Your task to perform on an android device: snooze an email in the gmail app Image 0: 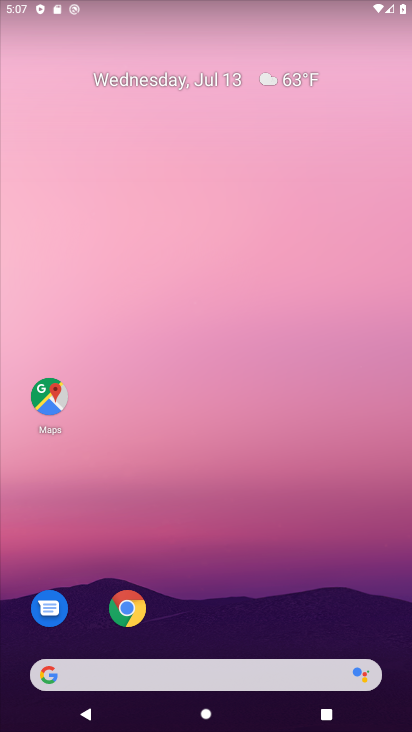
Step 0: drag from (295, 618) to (173, 174)
Your task to perform on an android device: snooze an email in the gmail app Image 1: 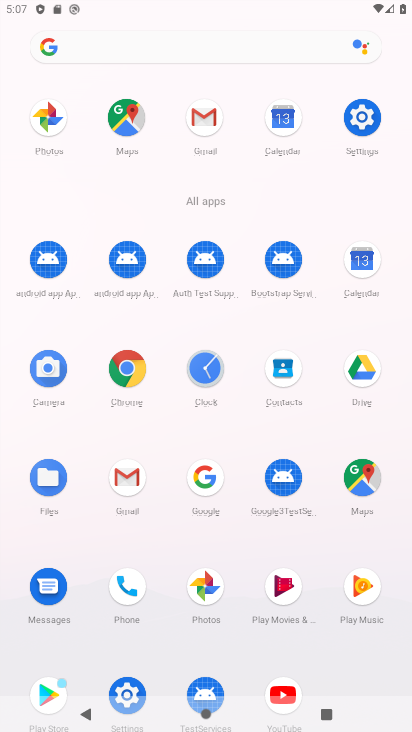
Step 1: click (209, 122)
Your task to perform on an android device: snooze an email in the gmail app Image 2: 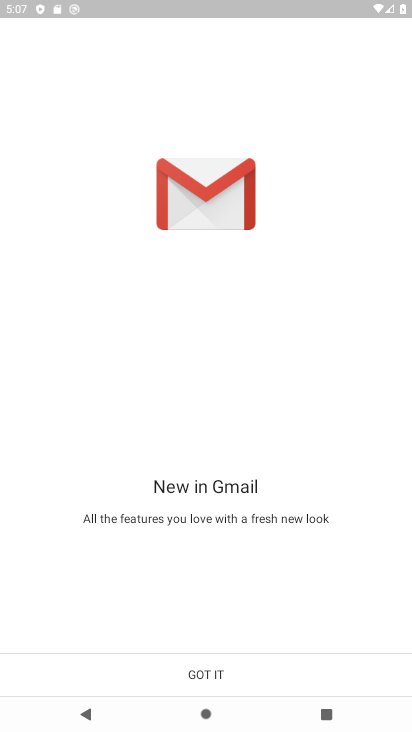
Step 2: click (213, 671)
Your task to perform on an android device: snooze an email in the gmail app Image 3: 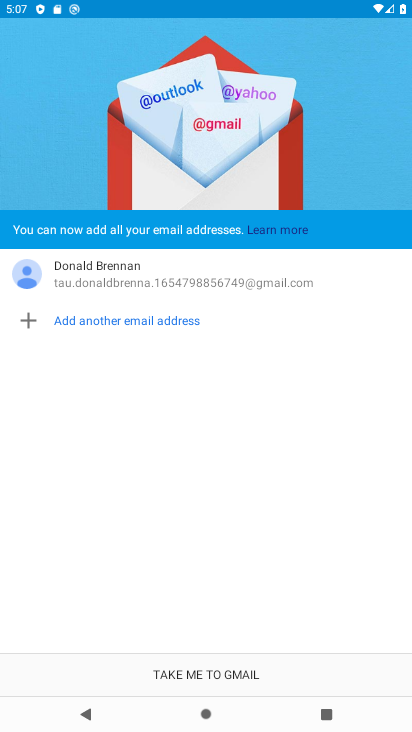
Step 3: click (208, 661)
Your task to perform on an android device: snooze an email in the gmail app Image 4: 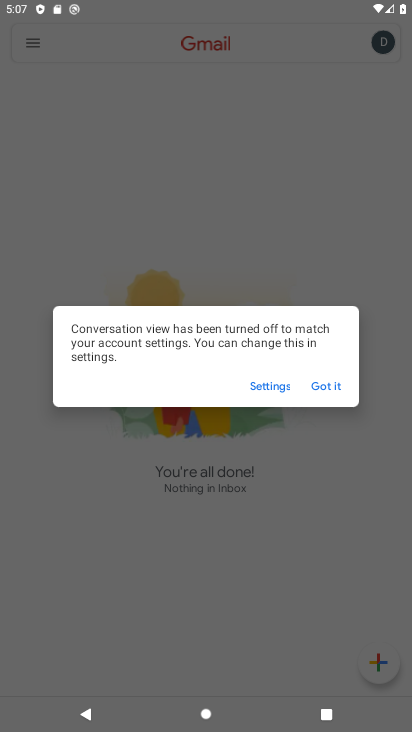
Step 4: click (338, 390)
Your task to perform on an android device: snooze an email in the gmail app Image 5: 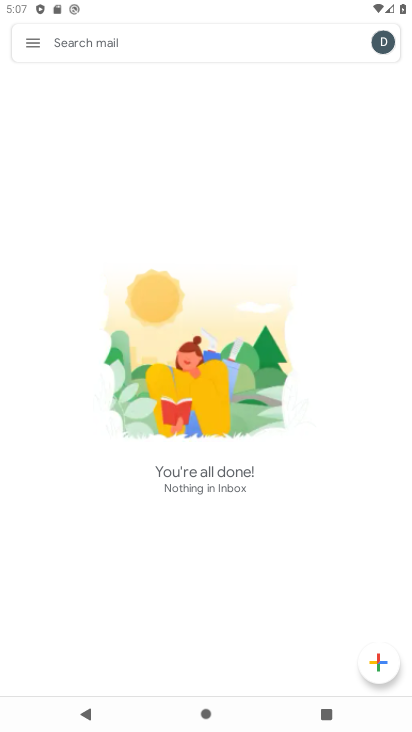
Step 5: task complete